Your task to perform on an android device: Do I have any events this weekend? Image 0: 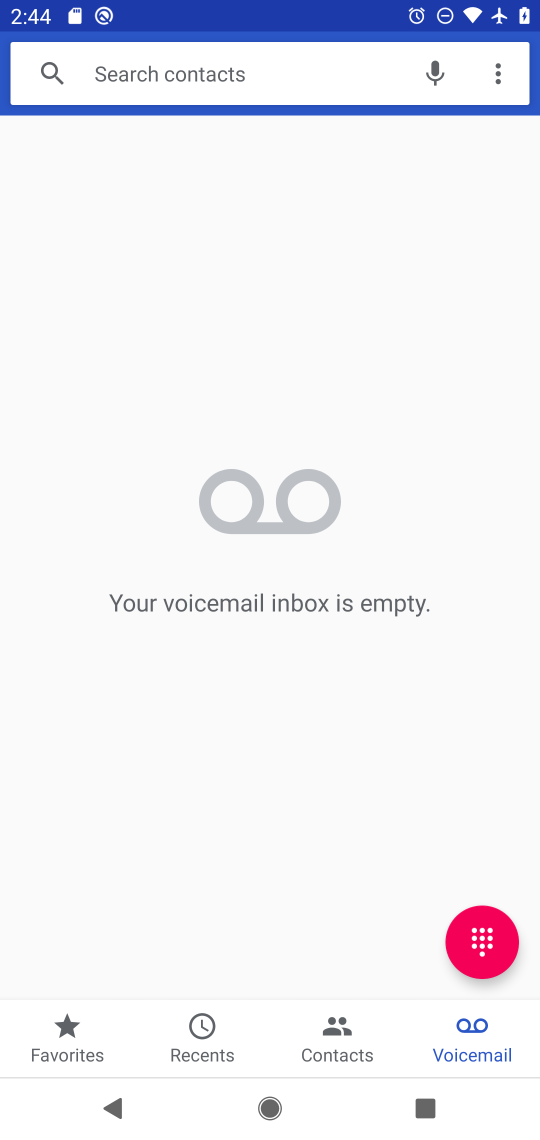
Step 0: press home button
Your task to perform on an android device: Do I have any events this weekend? Image 1: 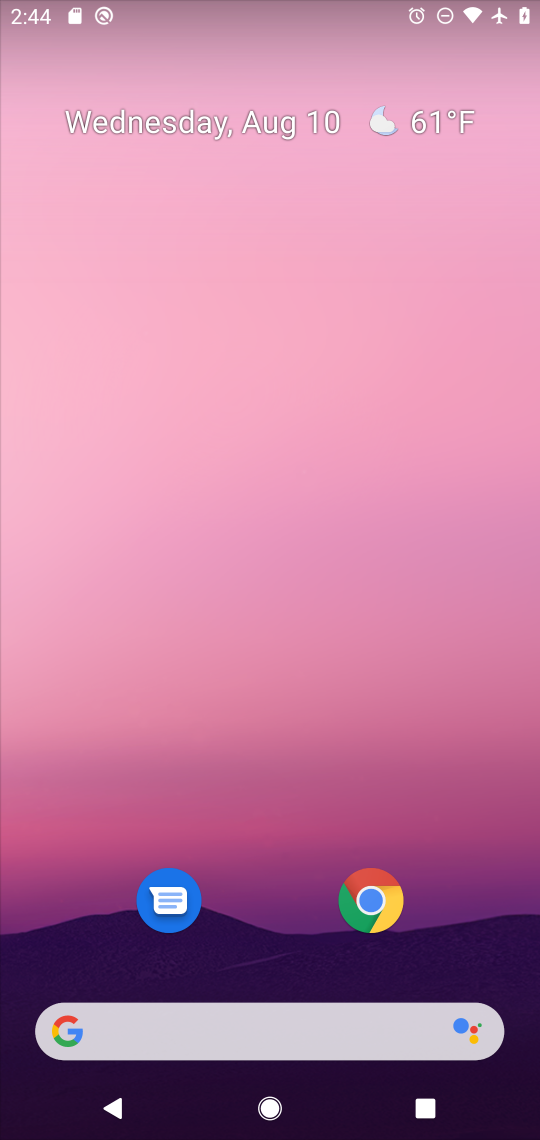
Step 1: drag from (253, 810) to (267, 12)
Your task to perform on an android device: Do I have any events this weekend? Image 2: 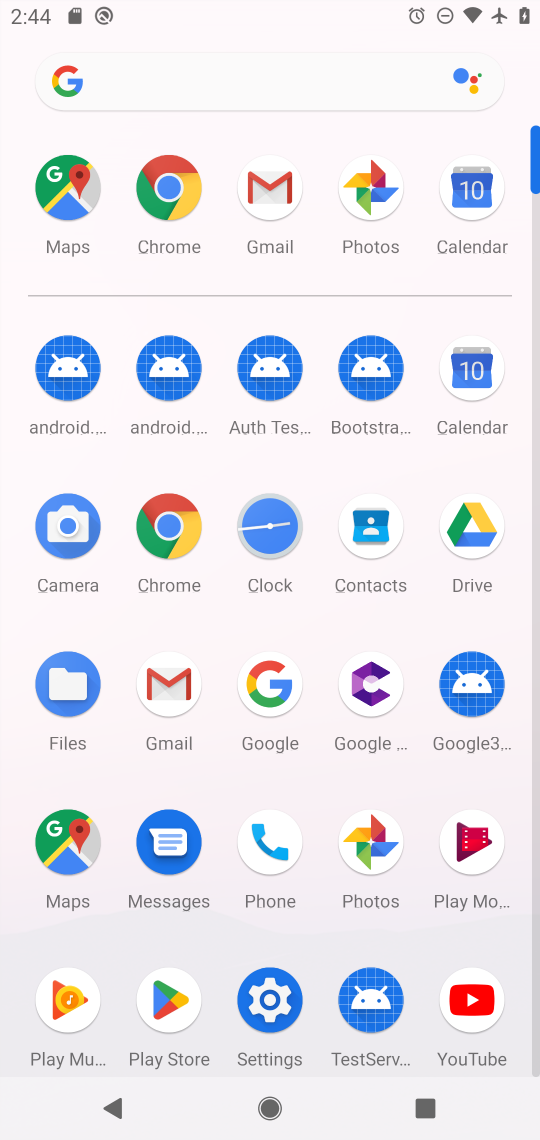
Step 2: click (462, 366)
Your task to perform on an android device: Do I have any events this weekend? Image 3: 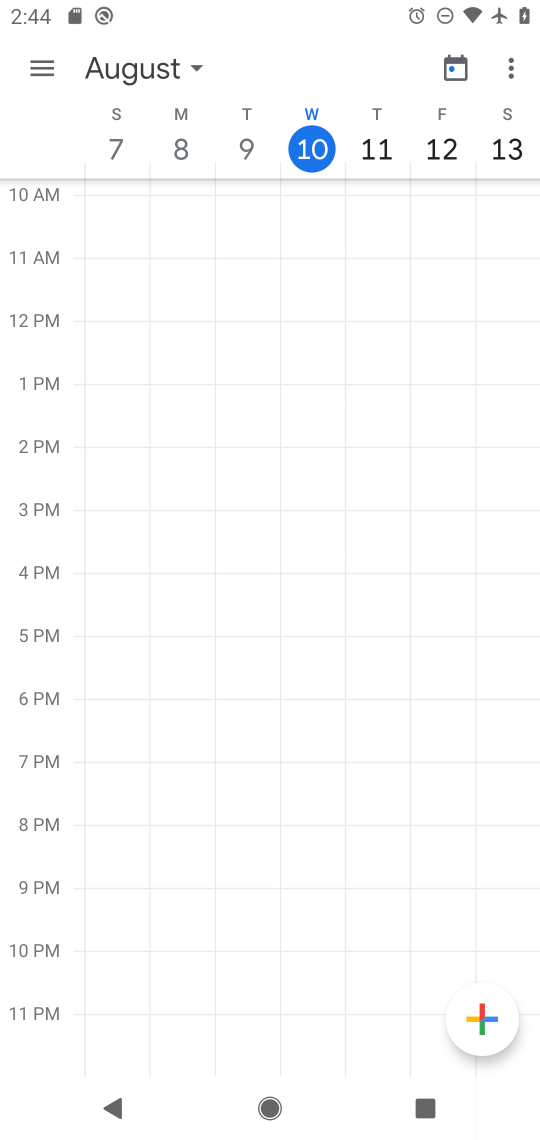
Step 3: task complete